Your task to perform on an android device: turn off translation in the chrome app Image 0: 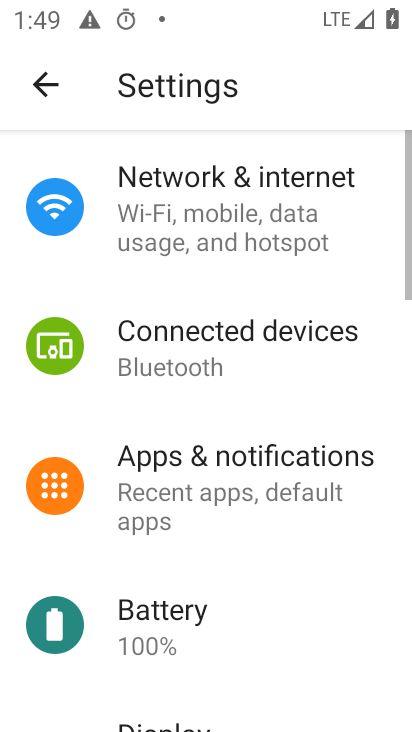
Step 0: press home button
Your task to perform on an android device: turn off translation in the chrome app Image 1: 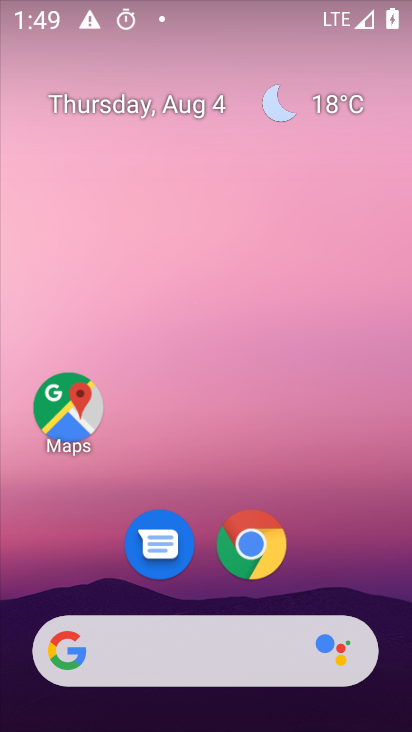
Step 1: click (246, 548)
Your task to perform on an android device: turn off translation in the chrome app Image 2: 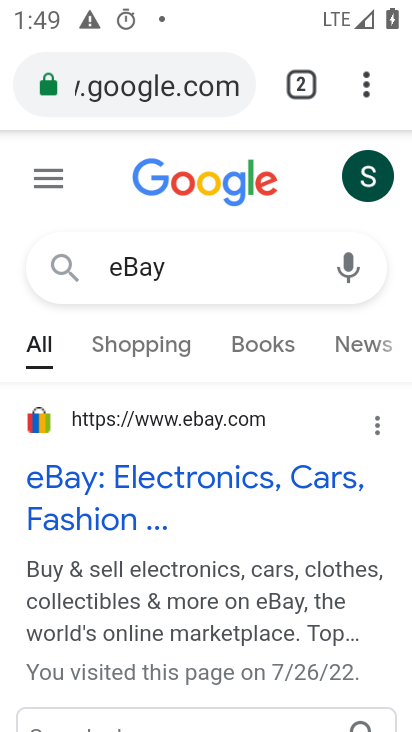
Step 2: click (366, 81)
Your task to perform on an android device: turn off translation in the chrome app Image 3: 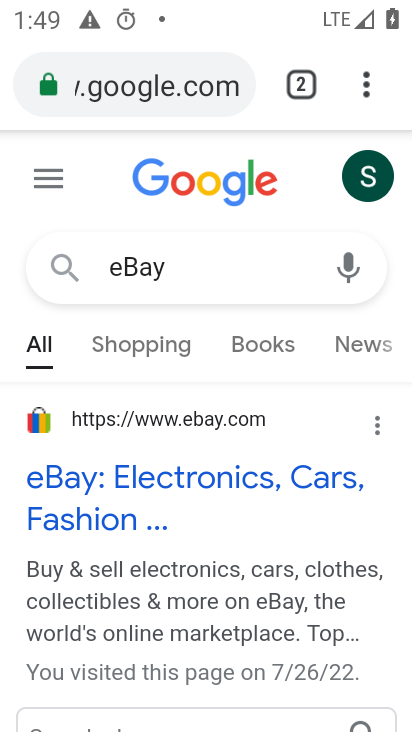
Step 3: click (366, 81)
Your task to perform on an android device: turn off translation in the chrome app Image 4: 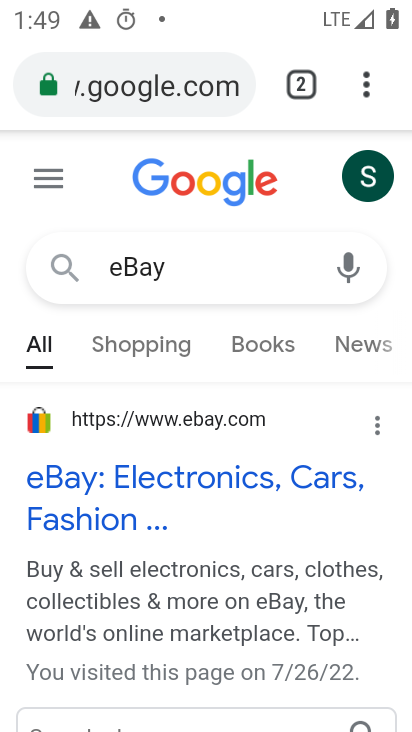
Step 4: click (364, 90)
Your task to perform on an android device: turn off translation in the chrome app Image 5: 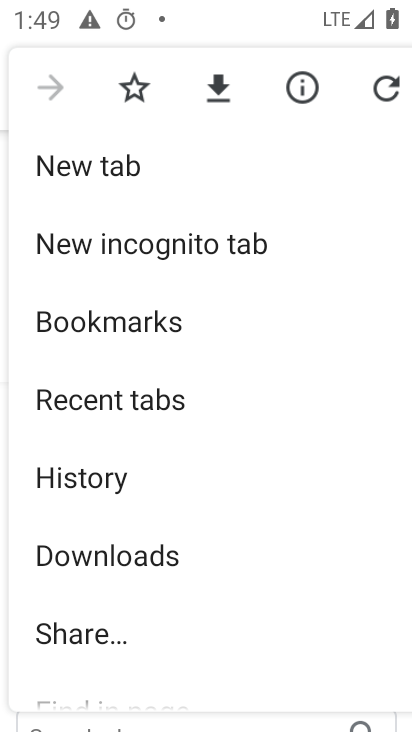
Step 5: drag from (241, 604) to (235, 200)
Your task to perform on an android device: turn off translation in the chrome app Image 6: 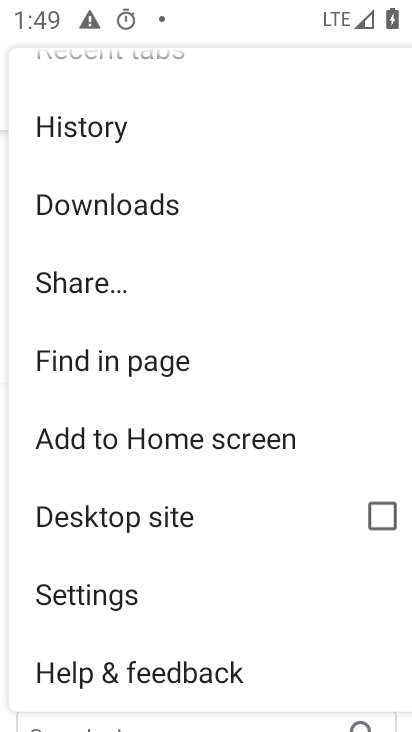
Step 6: click (73, 578)
Your task to perform on an android device: turn off translation in the chrome app Image 7: 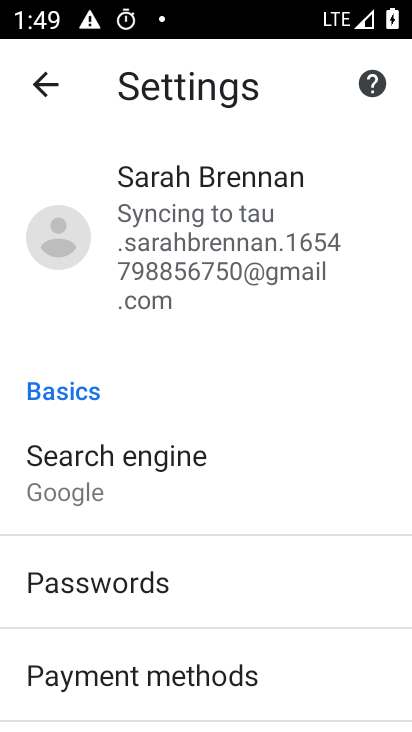
Step 7: drag from (297, 689) to (285, 221)
Your task to perform on an android device: turn off translation in the chrome app Image 8: 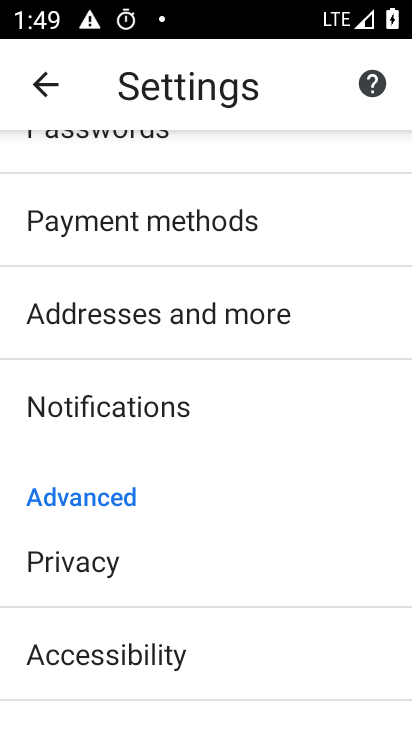
Step 8: drag from (261, 645) to (274, 299)
Your task to perform on an android device: turn off translation in the chrome app Image 9: 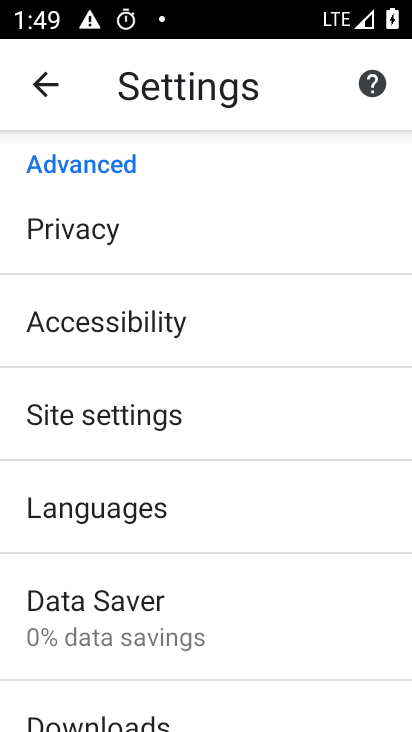
Step 9: click (114, 503)
Your task to perform on an android device: turn off translation in the chrome app Image 10: 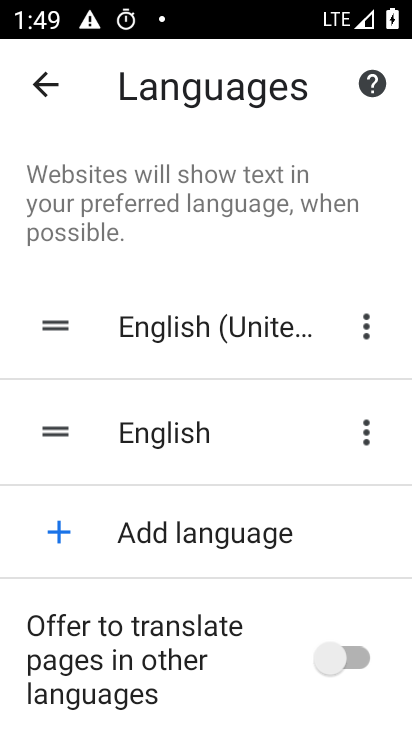
Step 10: task complete